Your task to perform on an android device: What's the weather today? Image 0: 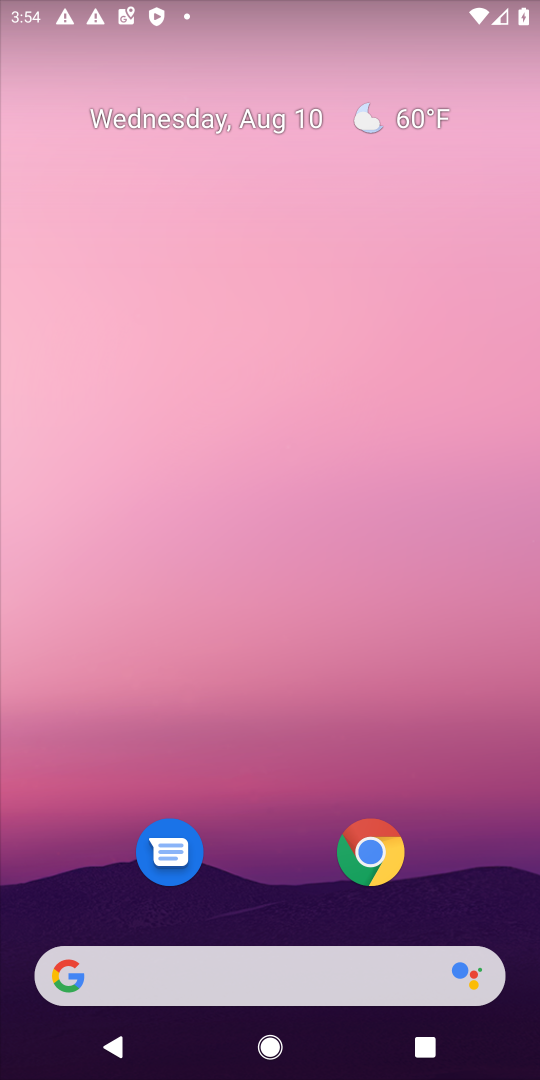
Step 0: click (432, 120)
Your task to perform on an android device: What's the weather today? Image 1: 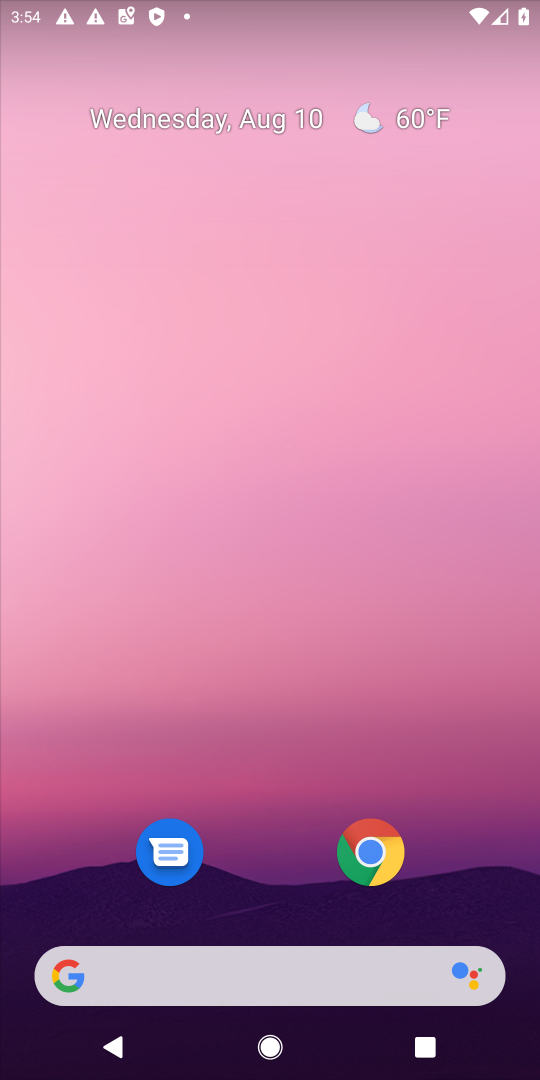
Step 1: click (432, 115)
Your task to perform on an android device: What's the weather today? Image 2: 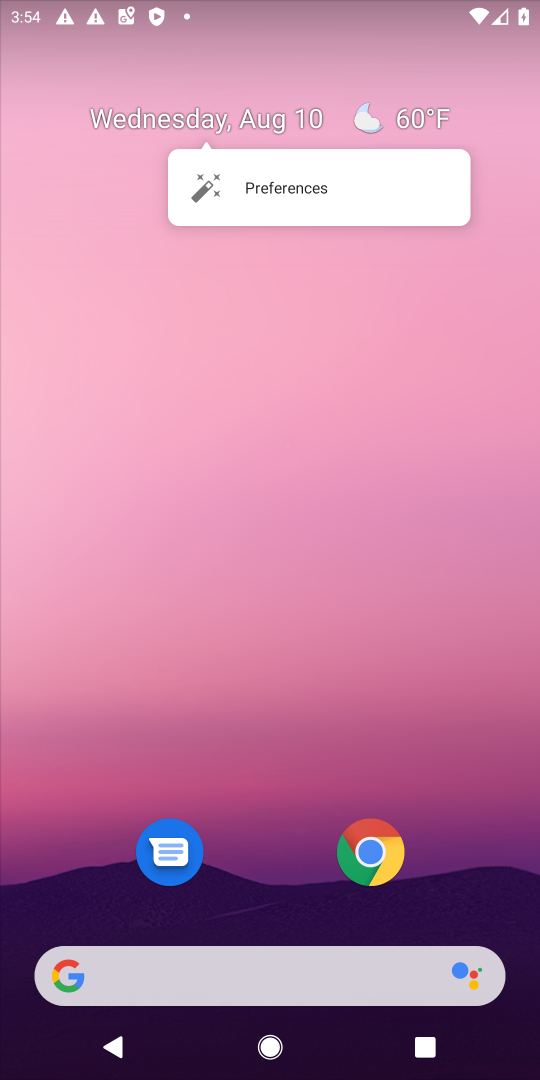
Step 2: click (414, 115)
Your task to perform on an android device: What's the weather today? Image 3: 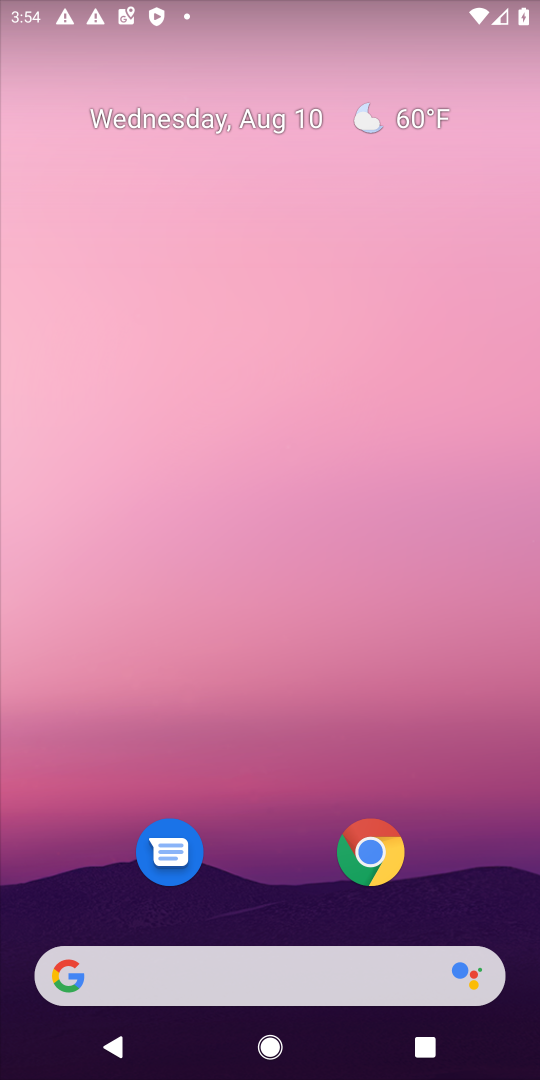
Step 3: drag from (287, 842) to (378, 41)
Your task to perform on an android device: What's the weather today? Image 4: 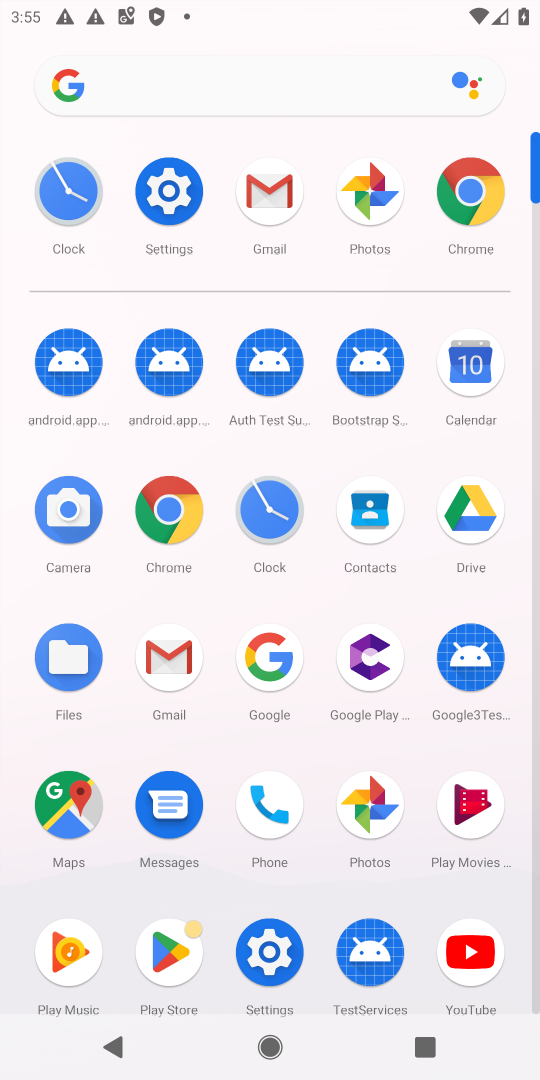
Step 4: click (159, 512)
Your task to perform on an android device: What's the weather today? Image 5: 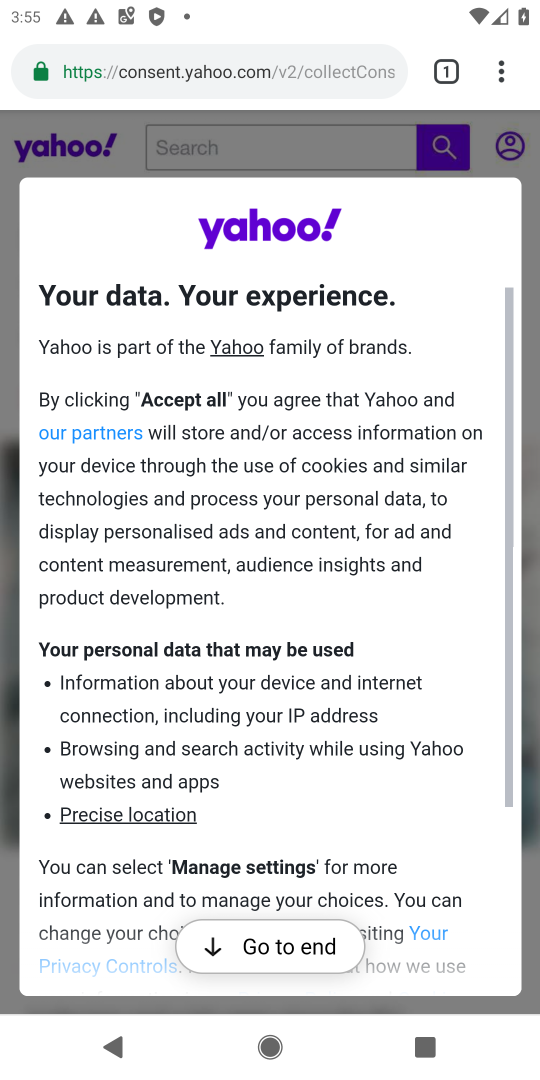
Step 5: click (252, 73)
Your task to perform on an android device: What's the weather today? Image 6: 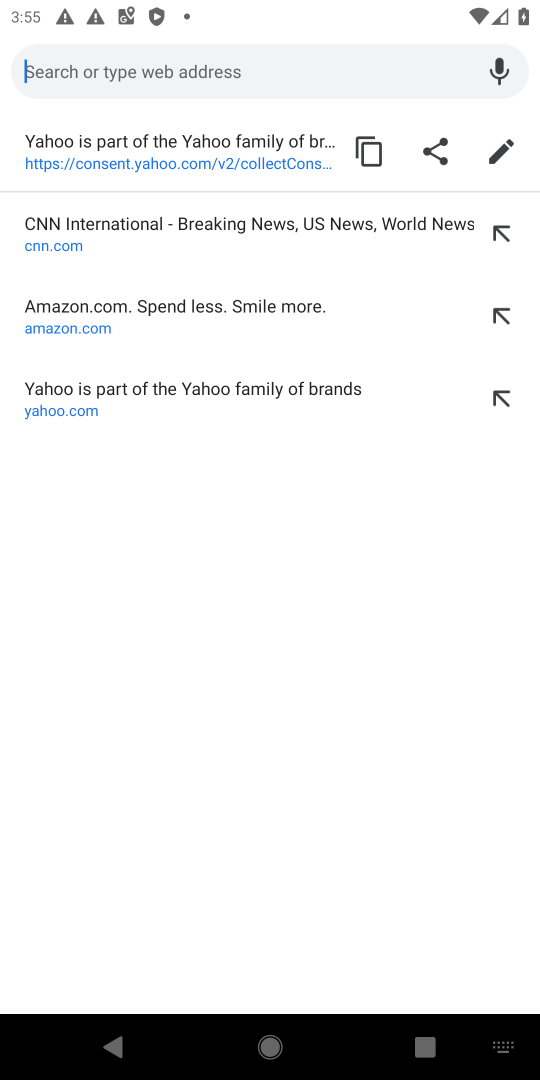
Step 6: type "weather"
Your task to perform on an android device: What's the weather today? Image 7: 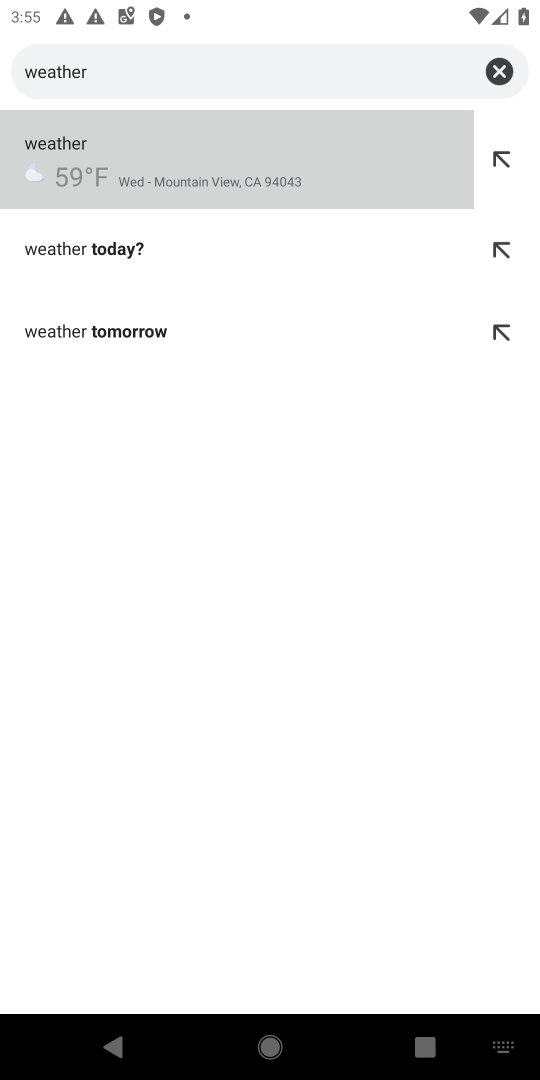
Step 7: click (201, 159)
Your task to perform on an android device: What's the weather today? Image 8: 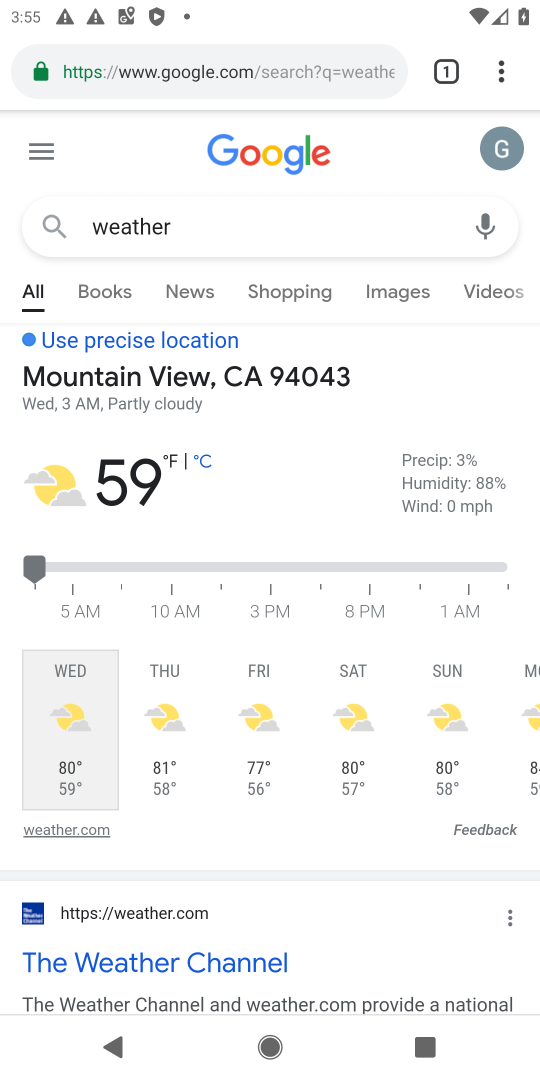
Step 8: task complete